Your task to perform on an android device: Open Google Maps Image 0: 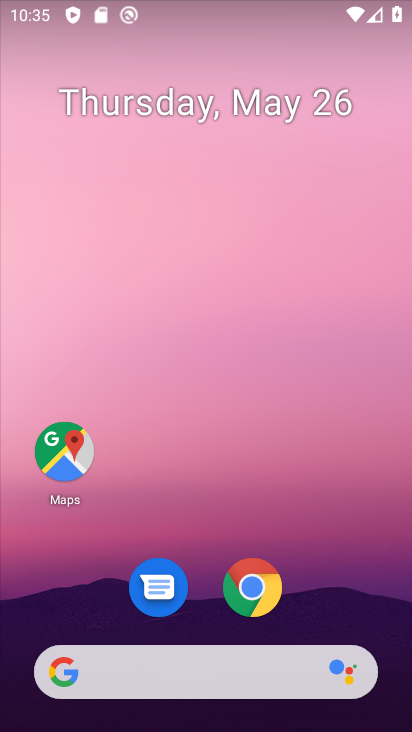
Step 0: drag from (238, 672) to (261, 6)
Your task to perform on an android device: Open Google Maps Image 1: 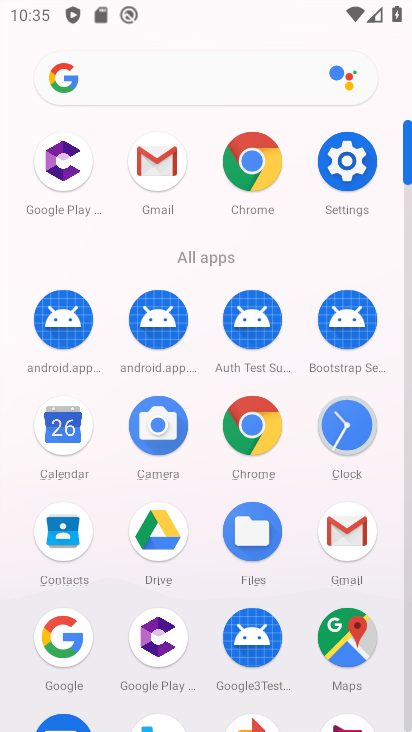
Step 1: click (336, 611)
Your task to perform on an android device: Open Google Maps Image 2: 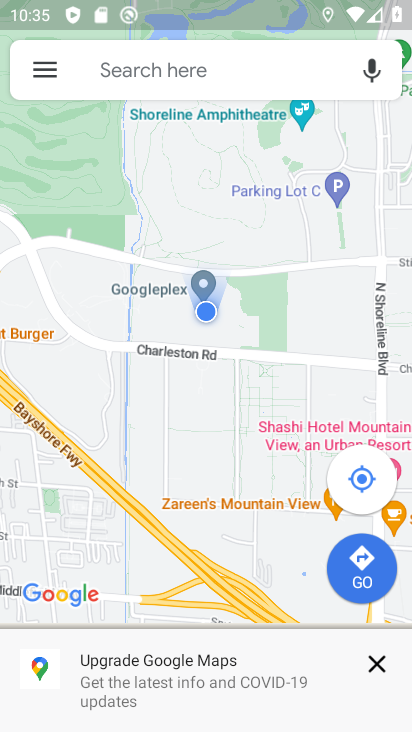
Step 2: click (375, 656)
Your task to perform on an android device: Open Google Maps Image 3: 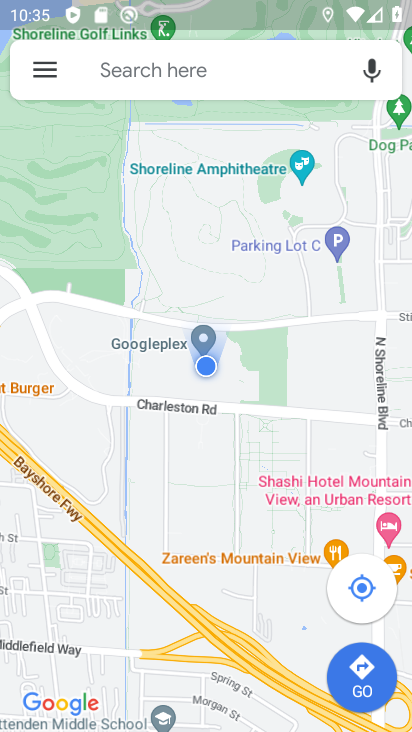
Step 3: task complete